Your task to perform on an android device: Go to network settings Image 0: 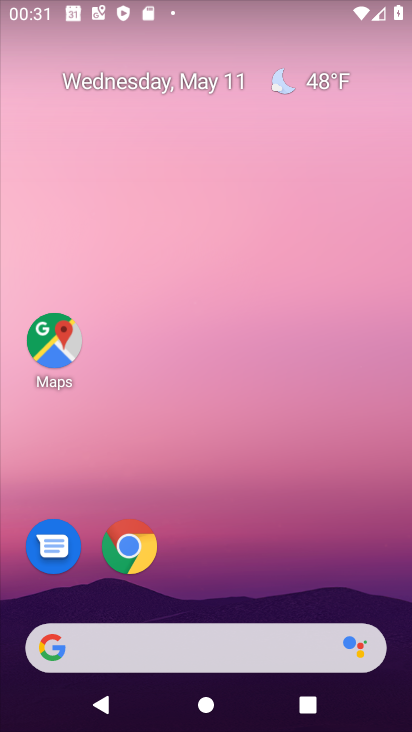
Step 0: drag from (217, 576) to (189, 136)
Your task to perform on an android device: Go to network settings Image 1: 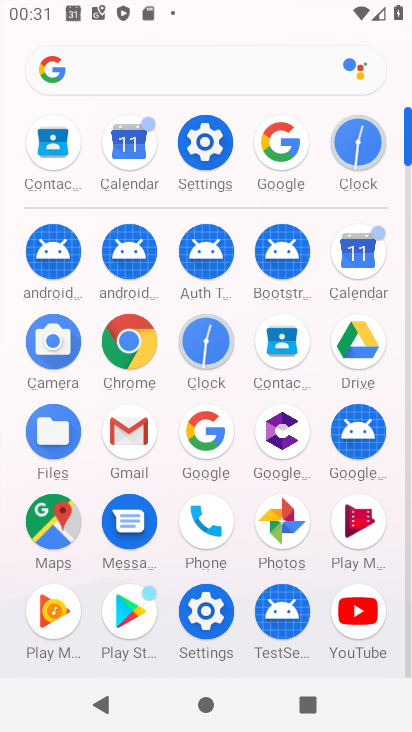
Step 1: click (200, 167)
Your task to perform on an android device: Go to network settings Image 2: 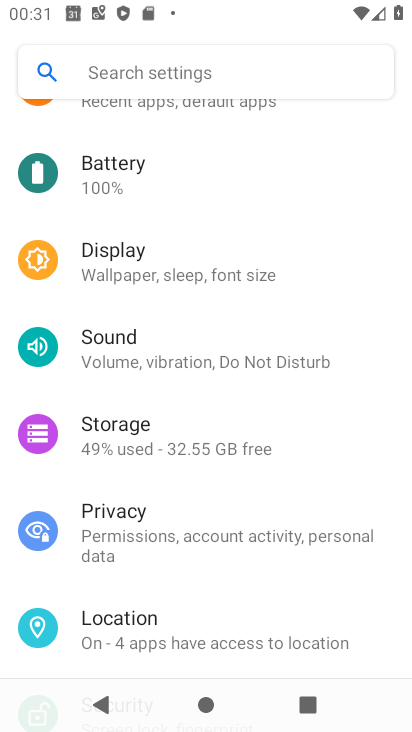
Step 2: drag from (219, 234) to (213, 579)
Your task to perform on an android device: Go to network settings Image 3: 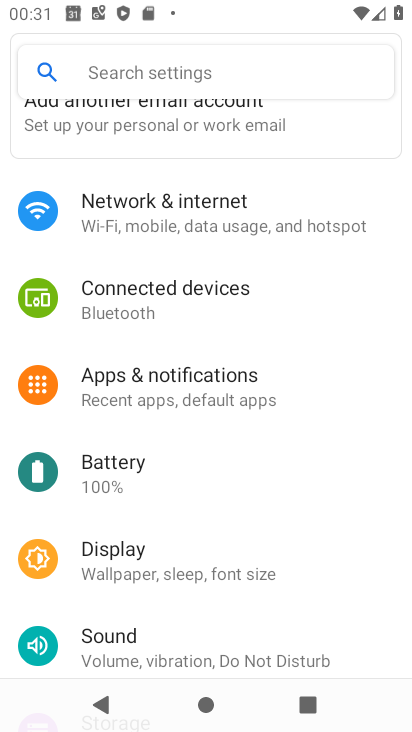
Step 3: click (170, 222)
Your task to perform on an android device: Go to network settings Image 4: 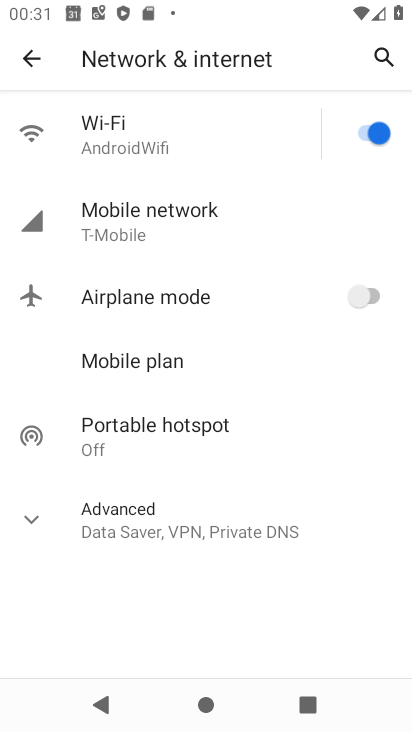
Step 4: click (152, 241)
Your task to perform on an android device: Go to network settings Image 5: 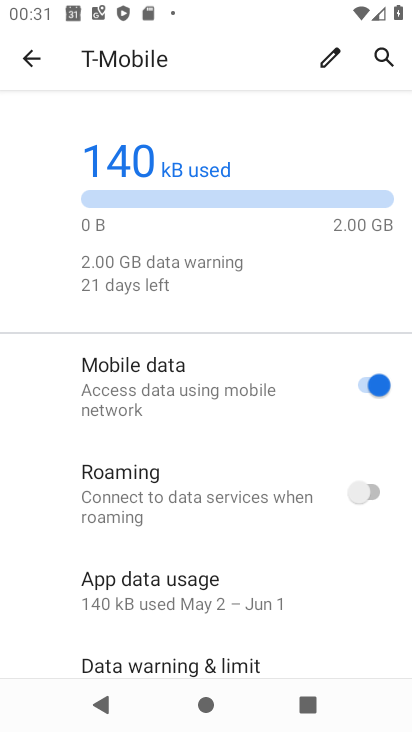
Step 5: task complete